Your task to perform on an android device: Open Yahoo.com Image 0: 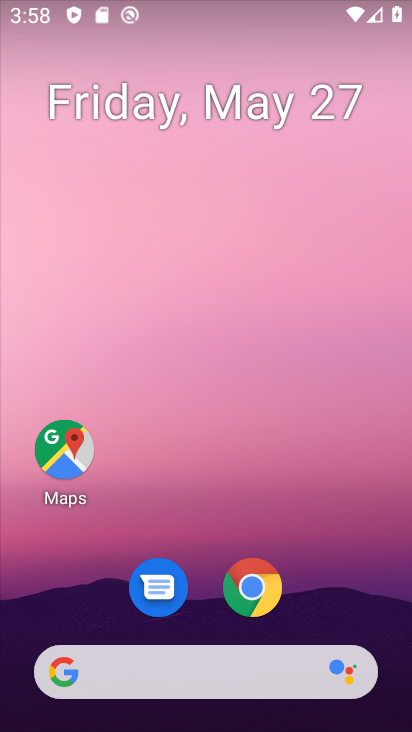
Step 0: drag from (302, 533) to (216, 26)
Your task to perform on an android device: Open Yahoo.com Image 1: 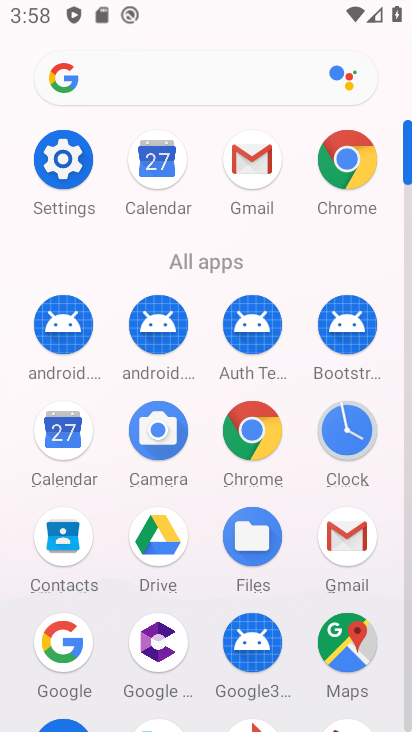
Step 1: click (252, 427)
Your task to perform on an android device: Open Yahoo.com Image 2: 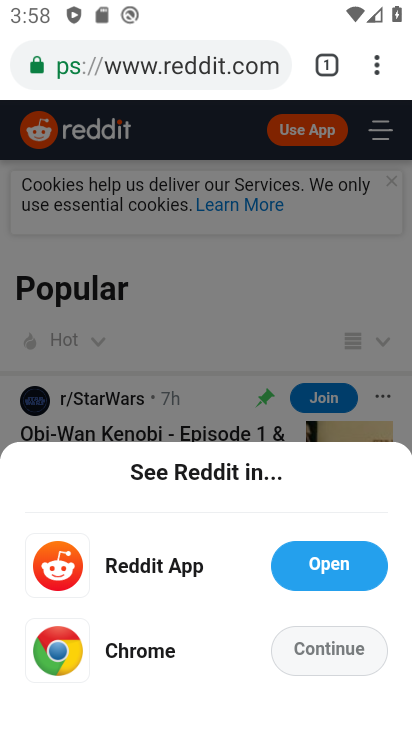
Step 2: click (228, 60)
Your task to perform on an android device: Open Yahoo.com Image 3: 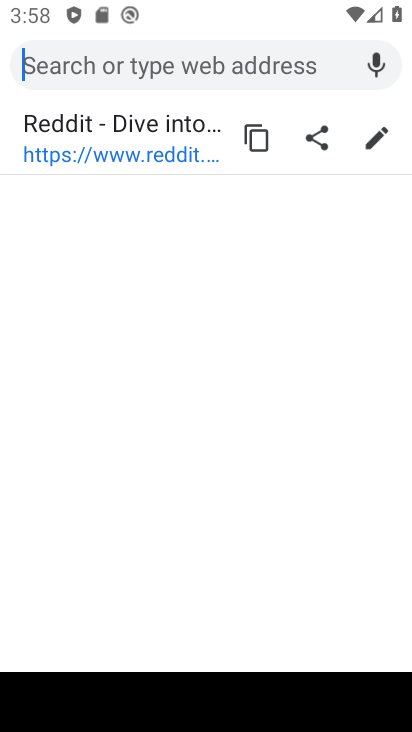
Step 3: type "Yahoo.com"
Your task to perform on an android device: Open Yahoo.com Image 4: 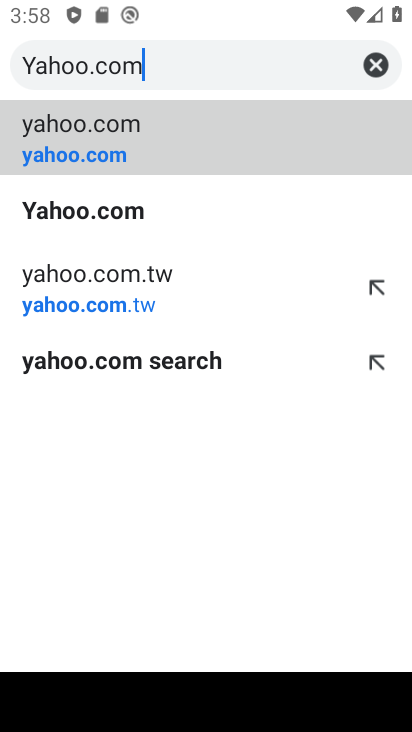
Step 4: click (123, 149)
Your task to perform on an android device: Open Yahoo.com Image 5: 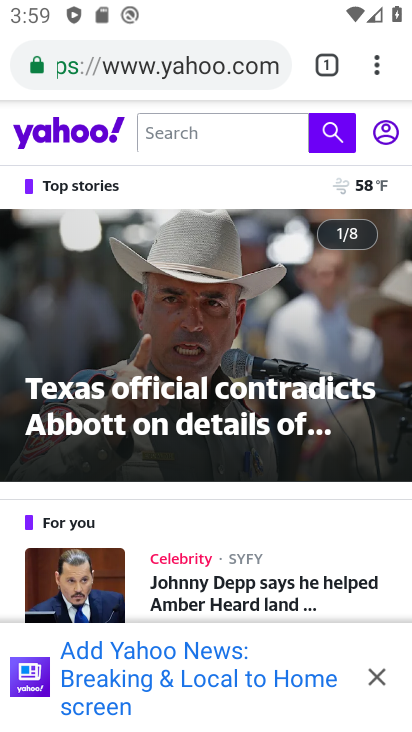
Step 5: task complete